Your task to perform on an android device: toggle priority inbox in the gmail app Image 0: 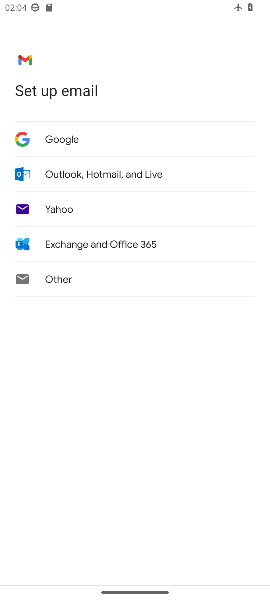
Step 0: press home button
Your task to perform on an android device: toggle priority inbox in the gmail app Image 1: 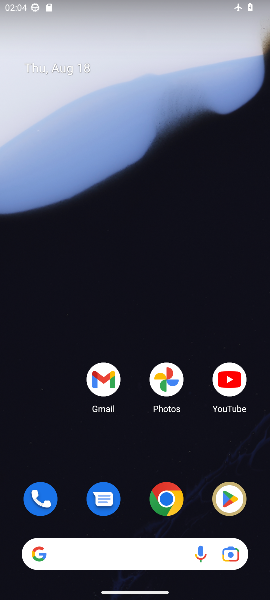
Step 1: click (106, 381)
Your task to perform on an android device: toggle priority inbox in the gmail app Image 2: 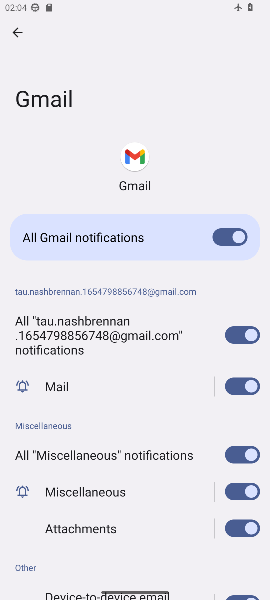
Step 2: press back button
Your task to perform on an android device: toggle priority inbox in the gmail app Image 3: 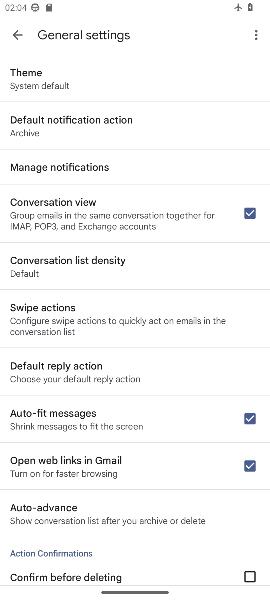
Step 3: press back button
Your task to perform on an android device: toggle priority inbox in the gmail app Image 4: 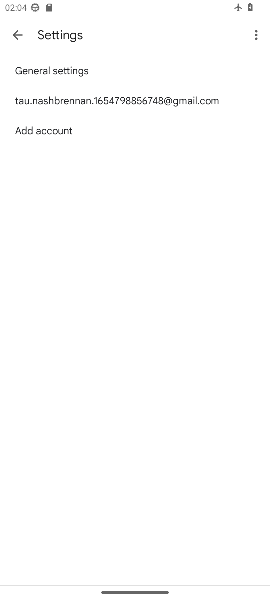
Step 4: click (91, 104)
Your task to perform on an android device: toggle priority inbox in the gmail app Image 5: 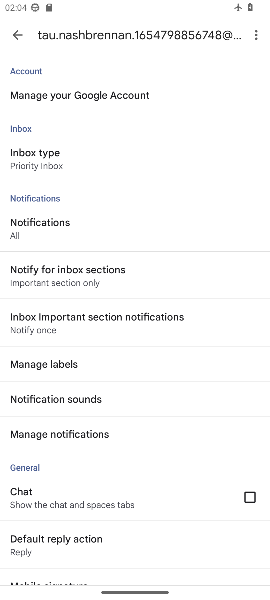
Step 5: drag from (139, 478) to (136, 100)
Your task to perform on an android device: toggle priority inbox in the gmail app Image 6: 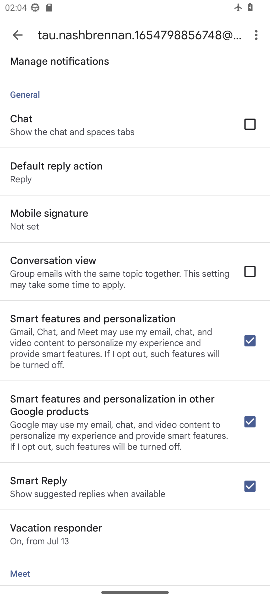
Step 6: drag from (157, 71) to (236, 589)
Your task to perform on an android device: toggle priority inbox in the gmail app Image 7: 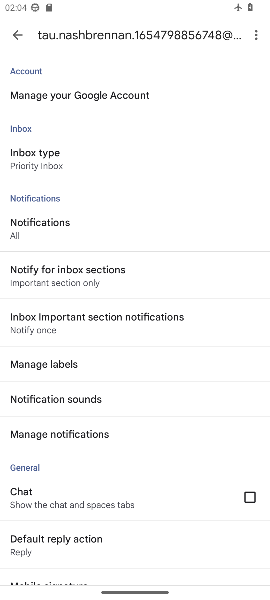
Step 7: click (29, 154)
Your task to perform on an android device: toggle priority inbox in the gmail app Image 8: 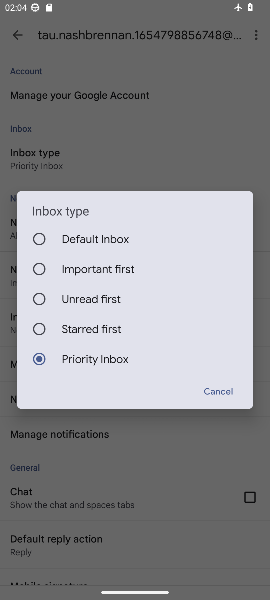
Step 8: click (33, 230)
Your task to perform on an android device: toggle priority inbox in the gmail app Image 9: 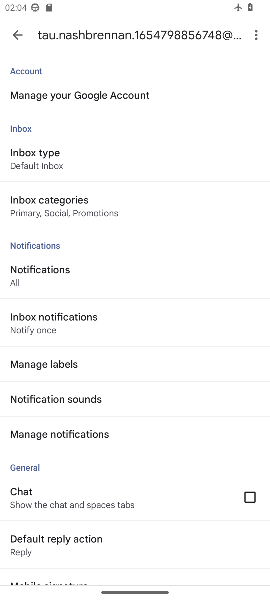
Step 9: task complete